Your task to perform on an android device: Go to eBay Image 0: 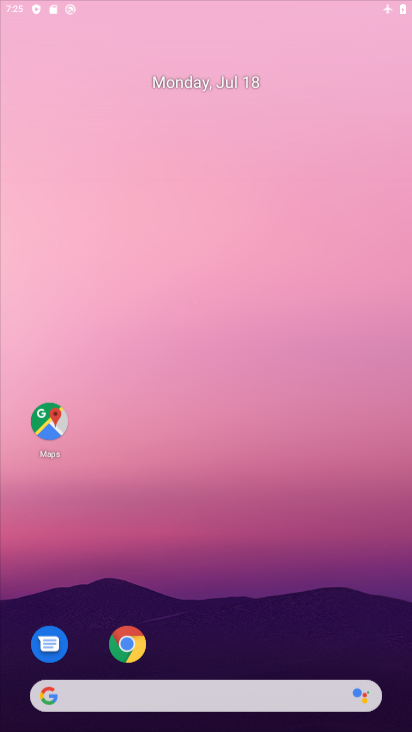
Step 0: drag from (354, 591) to (391, 328)
Your task to perform on an android device: Go to eBay Image 1: 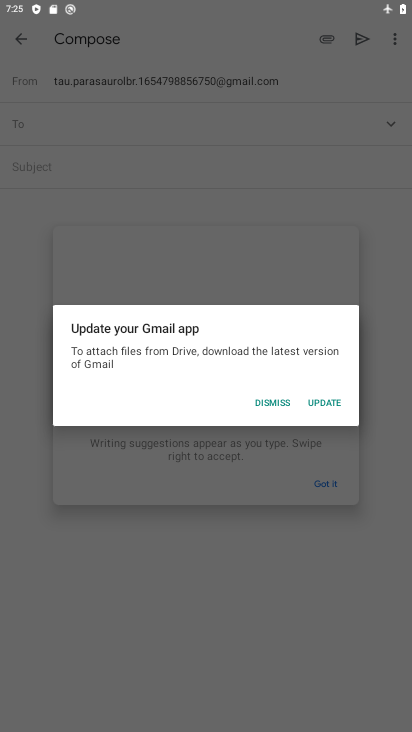
Step 1: press home button
Your task to perform on an android device: Go to eBay Image 2: 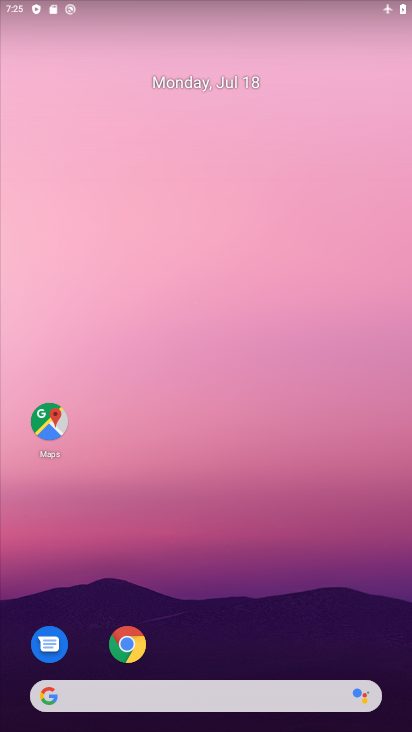
Step 2: drag from (309, 627) to (401, 78)
Your task to perform on an android device: Go to eBay Image 3: 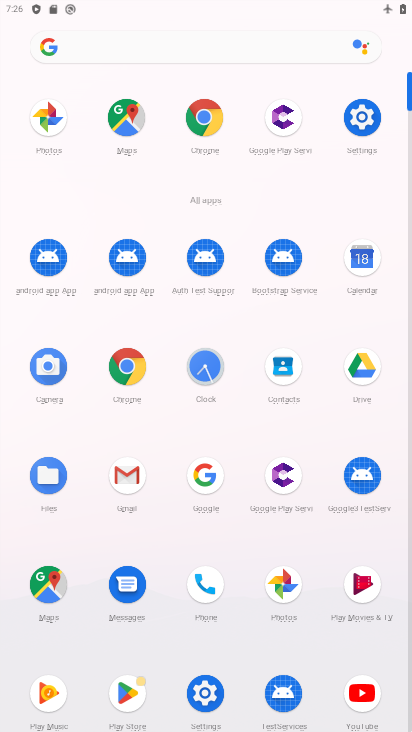
Step 3: click (209, 121)
Your task to perform on an android device: Go to eBay Image 4: 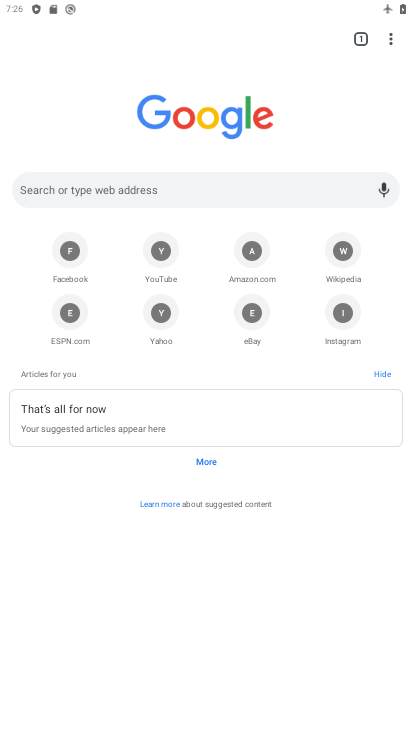
Step 4: click (196, 200)
Your task to perform on an android device: Go to eBay Image 5: 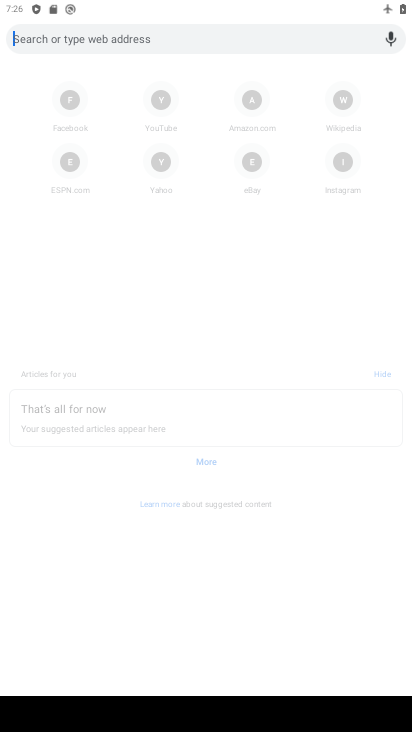
Step 5: type "ebay"
Your task to perform on an android device: Go to eBay Image 6: 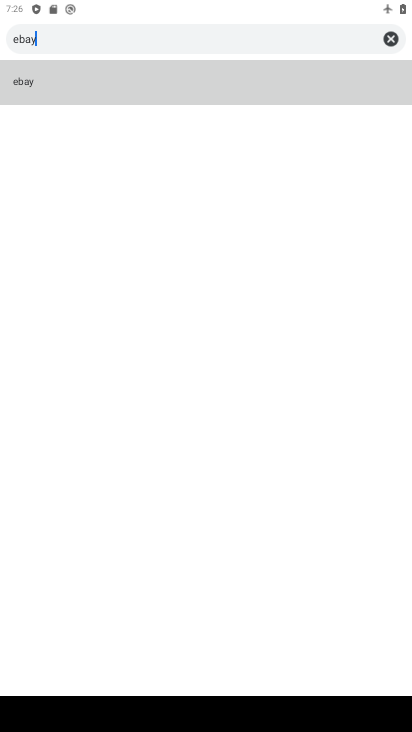
Step 6: click (366, 85)
Your task to perform on an android device: Go to eBay Image 7: 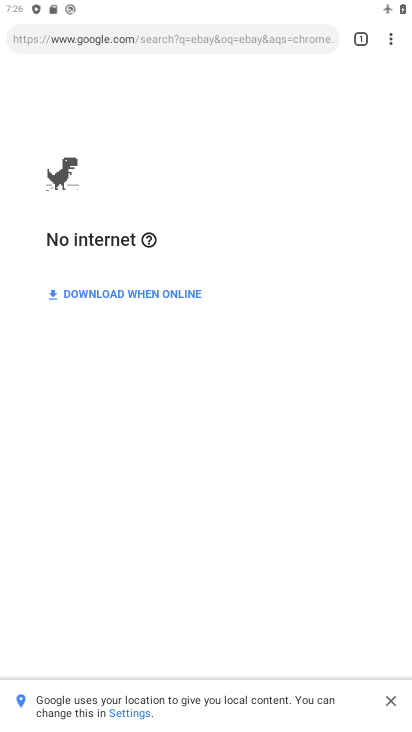
Step 7: task complete